Your task to perform on an android device: visit the assistant section in the google photos Image 0: 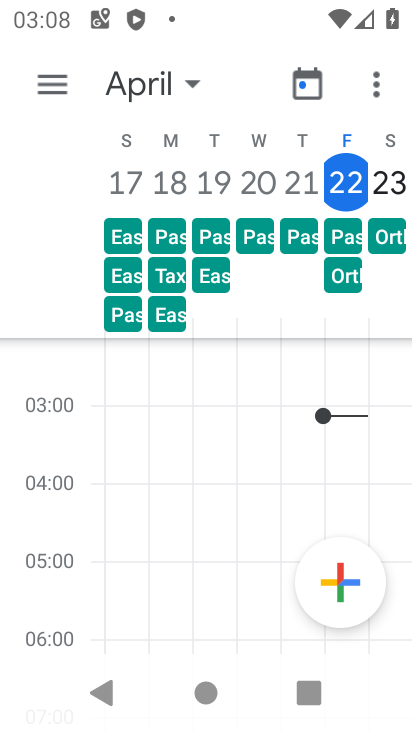
Step 0: press home button
Your task to perform on an android device: visit the assistant section in the google photos Image 1: 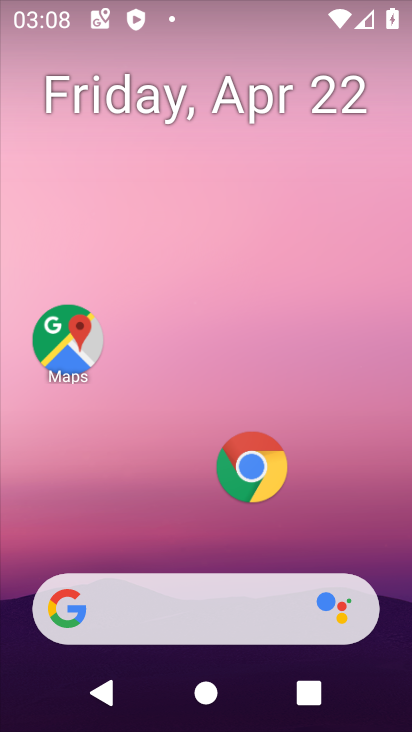
Step 1: drag from (171, 251) to (187, 171)
Your task to perform on an android device: visit the assistant section in the google photos Image 2: 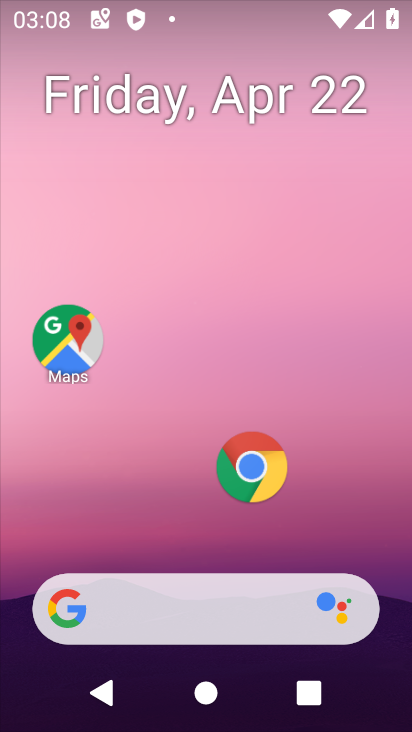
Step 2: drag from (141, 550) to (230, 47)
Your task to perform on an android device: visit the assistant section in the google photos Image 3: 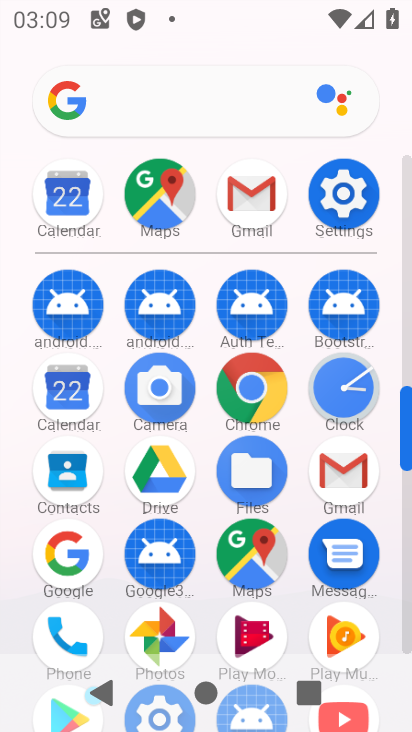
Step 3: drag from (205, 600) to (238, 203)
Your task to perform on an android device: visit the assistant section in the google photos Image 4: 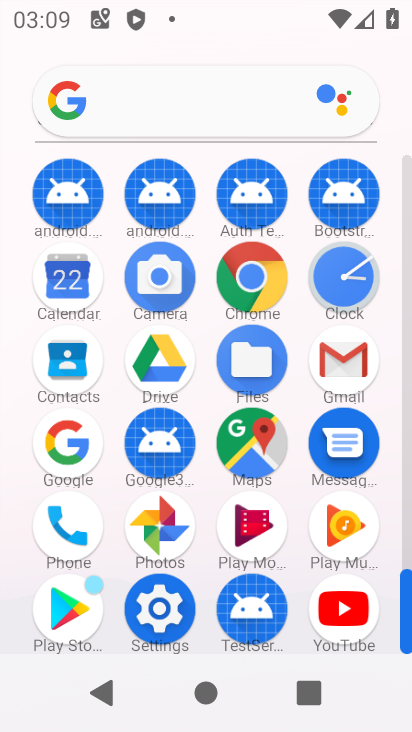
Step 4: click (156, 534)
Your task to perform on an android device: visit the assistant section in the google photos Image 5: 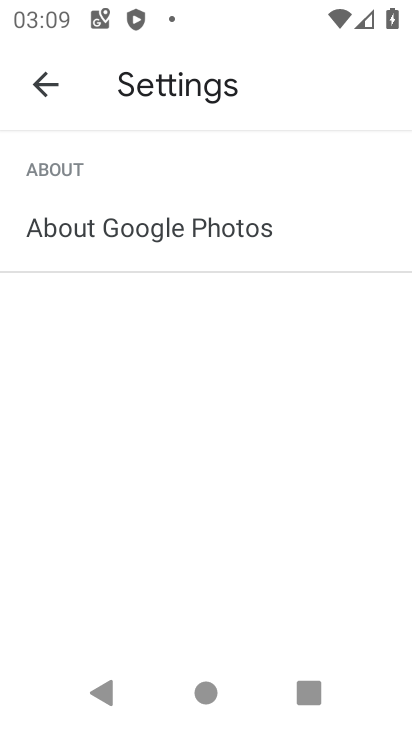
Step 5: click (50, 86)
Your task to perform on an android device: visit the assistant section in the google photos Image 6: 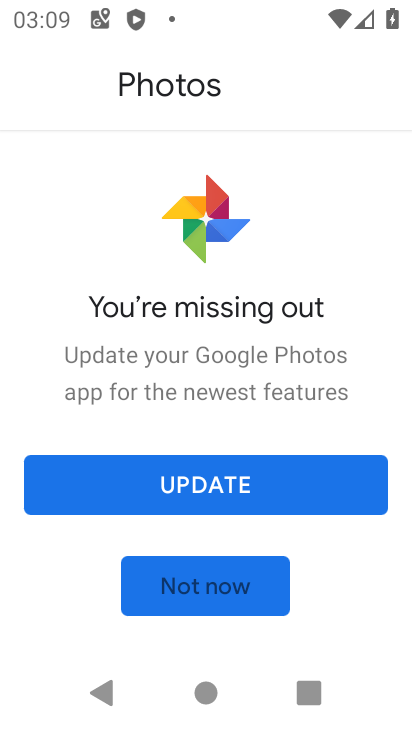
Step 6: click (207, 492)
Your task to perform on an android device: visit the assistant section in the google photos Image 7: 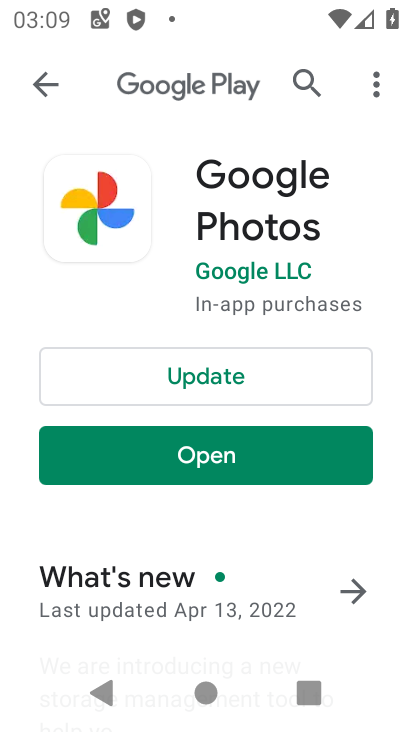
Step 7: click (218, 385)
Your task to perform on an android device: visit the assistant section in the google photos Image 8: 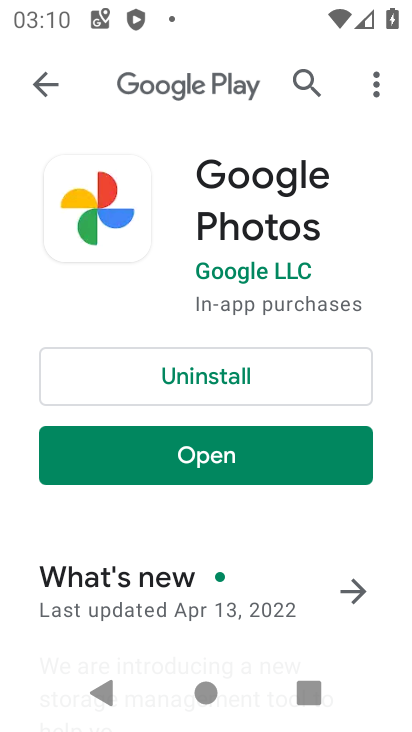
Step 8: click (244, 453)
Your task to perform on an android device: visit the assistant section in the google photos Image 9: 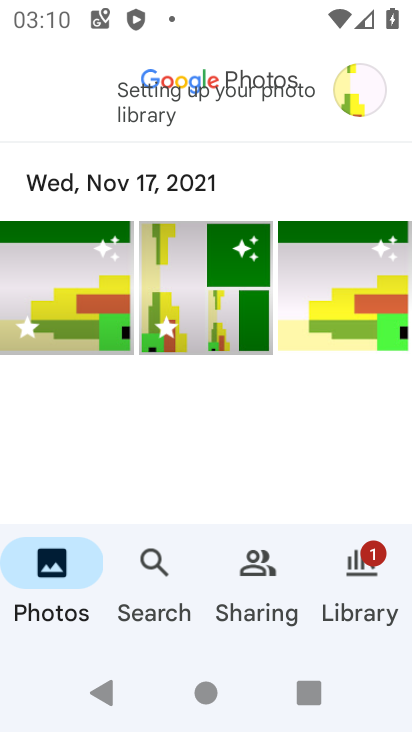
Step 9: task complete